Your task to perform on an android device: see creations saved in the google photos Image 0: 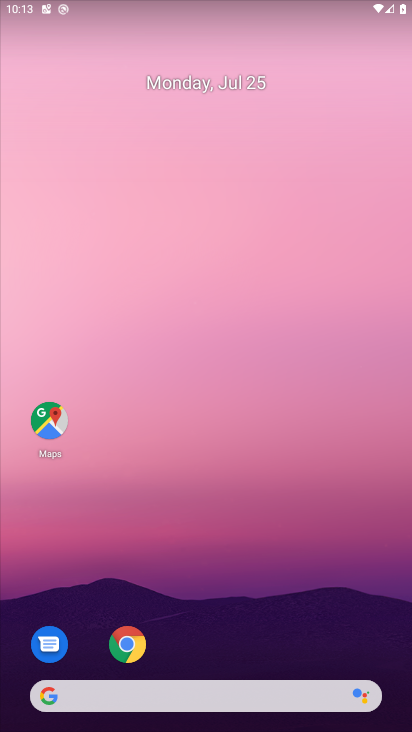
Step 0: drag from (270, 590) to (246, 60)
Your task to perform on an android device: see creations saved in the google photos Image 1: 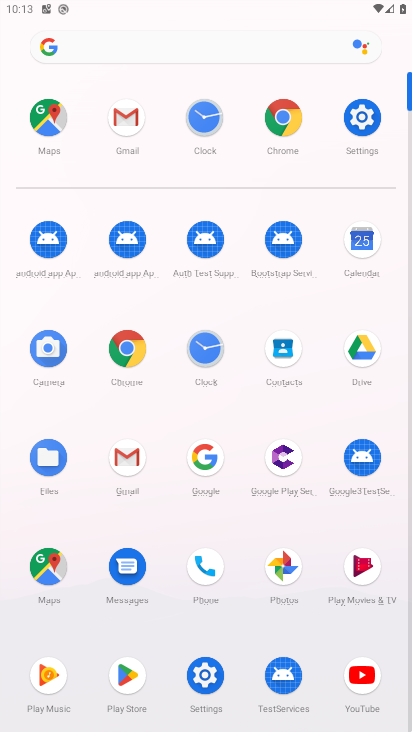
Step 1: click (284, 561)
Your task to perform on an android device: see creations saved in the google photos Image 2: 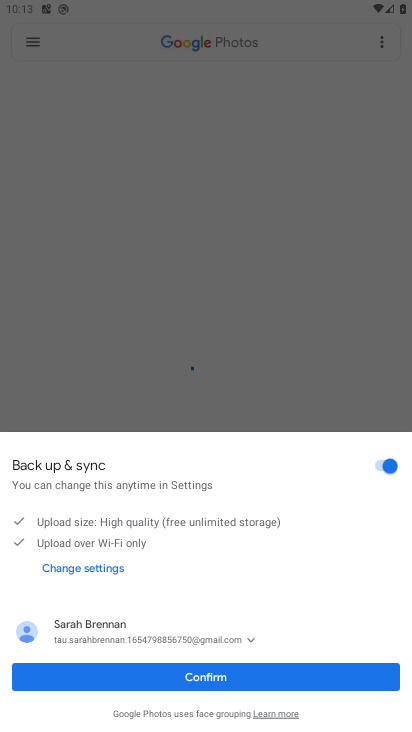
Step 2: click (182, 675)
Your task to perform on an android device: see creations saved in the google photos Image 3: 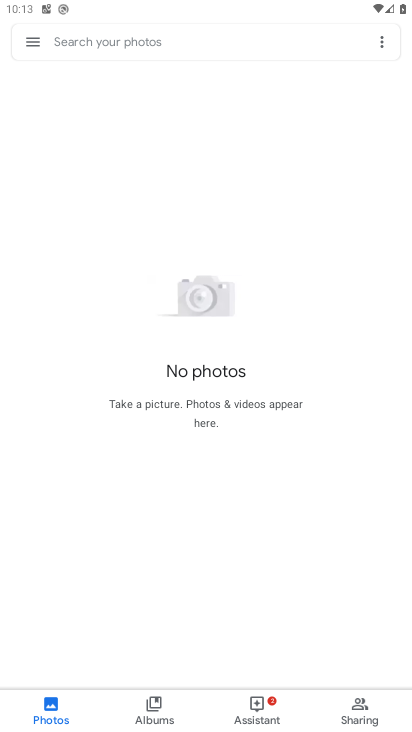
Step 3: click (146, 41)
Your task to perform on an android device: see creations saved in the google photos Image 4: 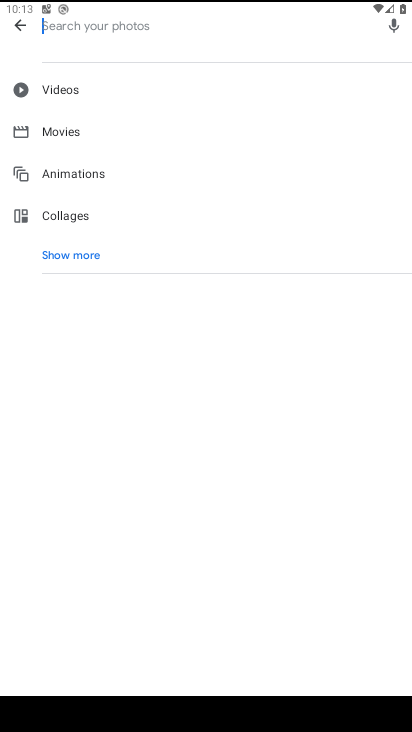
Step 4: click (90, 254)
Your task to perform on an android device: see creations saved in the google photos Image 5: 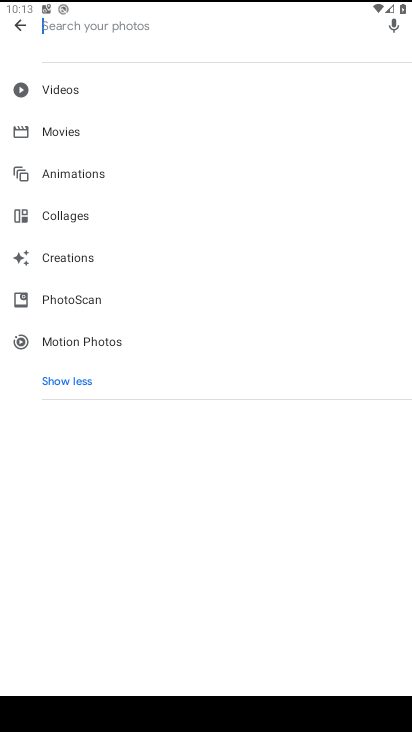
Step 5: click (77, 252)
Your task to perform on an android device: see creations saved in the google photos Image 6: 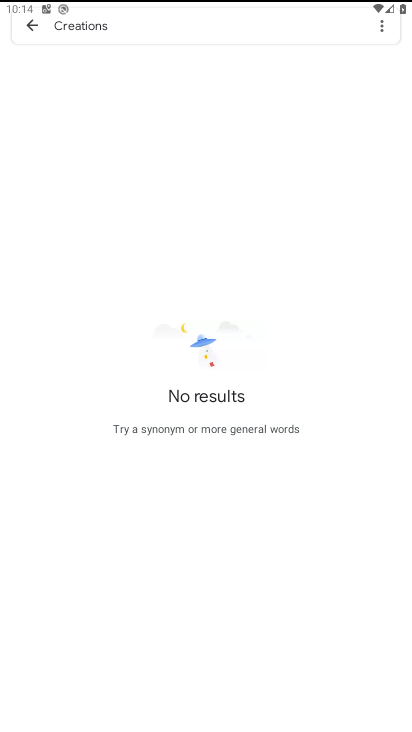
Step 6: task complete